Your task to perform on an android device: find snoozed emails in the gmail app Image 0: 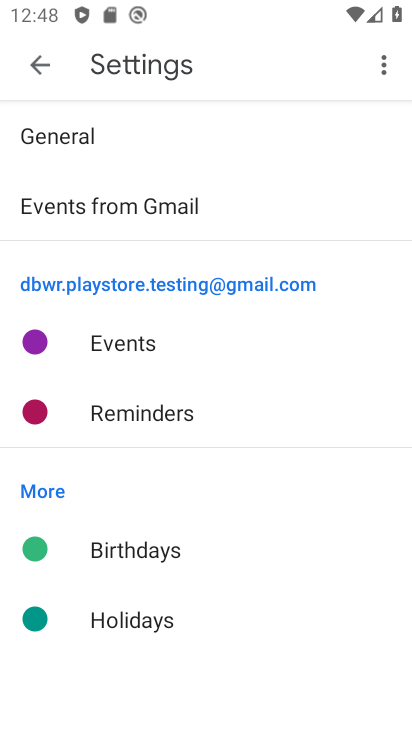
Step 0: press back button
Your task to perform on an android device: find snoozed emails in the gmail app Image 1: 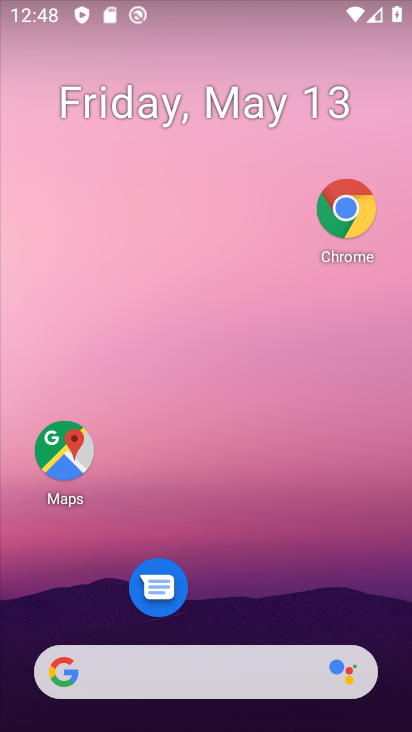
Step 1: drag from (235, 630) to (314, 119)
Your task to perform on an android device: find snoozed emails in the gmail app Image 2: 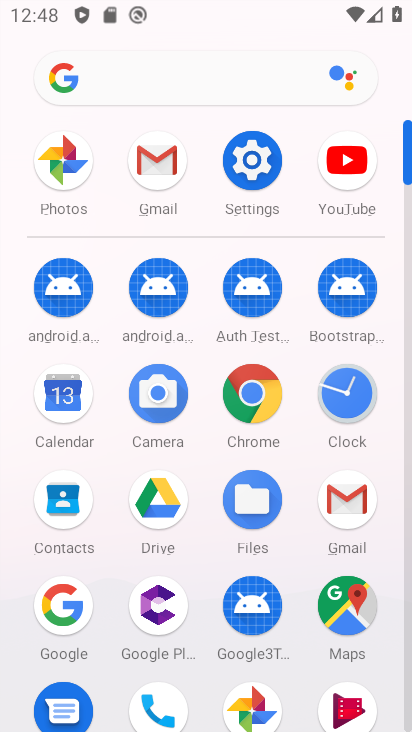
Step 2: click (150, 152)
Your task to perform on an android device: find snoozed emails in the gmail app Image 3: 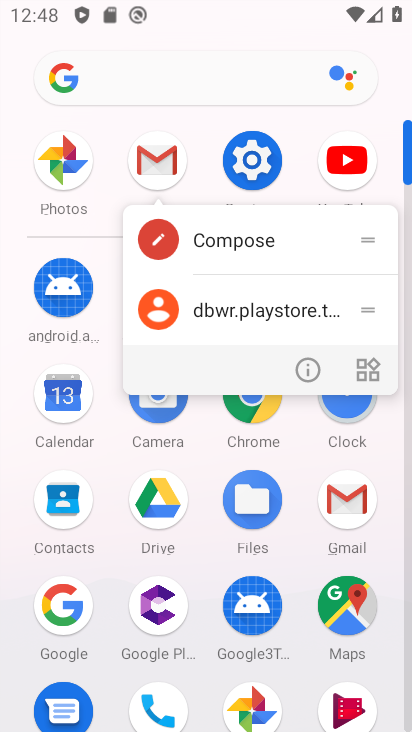
Step 3: click (170, 164)
Your task to perform on an android device: find snoozed emails in the gmail app Image 4: 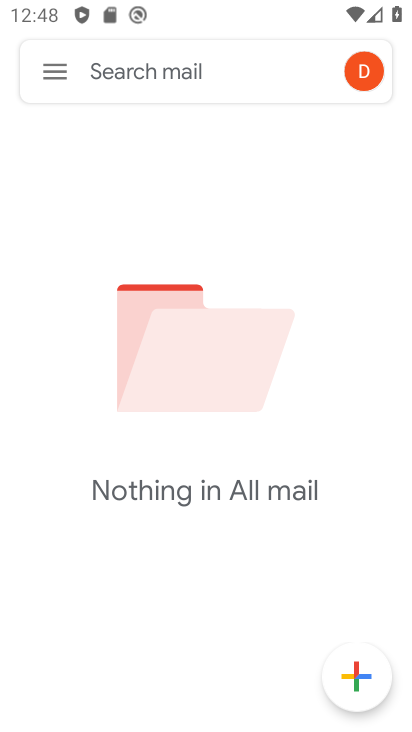
Step 4: click (43, 66)
Your task to perform on an android device: find snoozed emails in the gmail app Image 5: 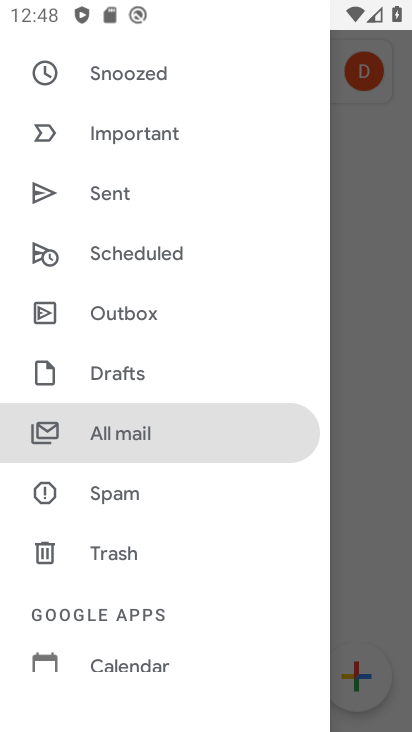
Step 5: click (141, 76)
Your task to perform on an android device: find snoozed emails in the gmail app Image 6: 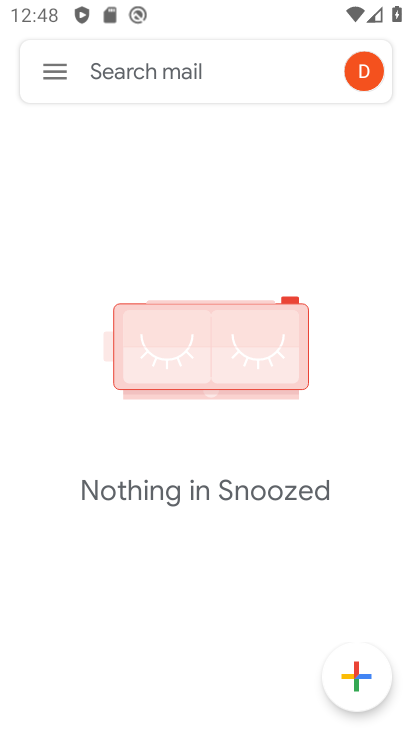
Step 6: task complete